Your task to perform on an android device: turn on priority inbox in the gmail app Image 0: 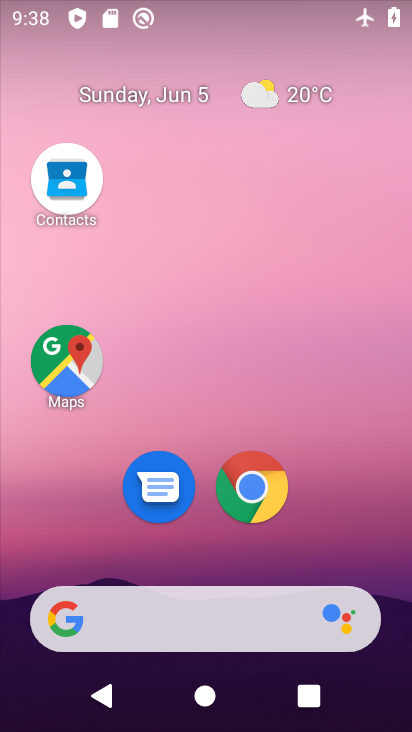
Step 0: drag from (183, 600) to (286, 14)
Your task to perform on an android device: turn on priority inbox in the gmail app Image 1: 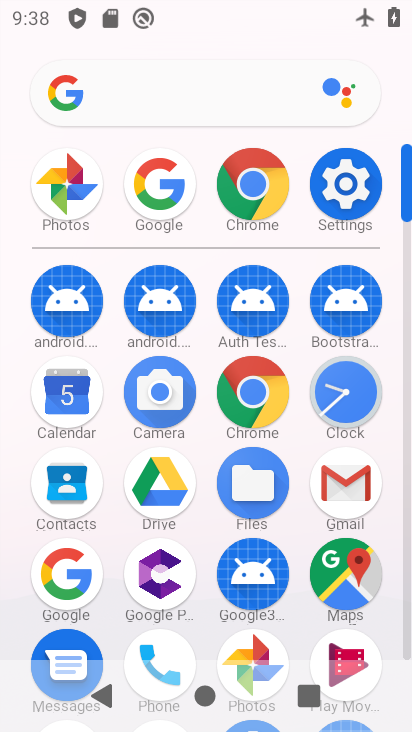
Step 1: click (358, 493)
Your task to perform on an android device: turn on priority inbox in the gmail app Image 2: 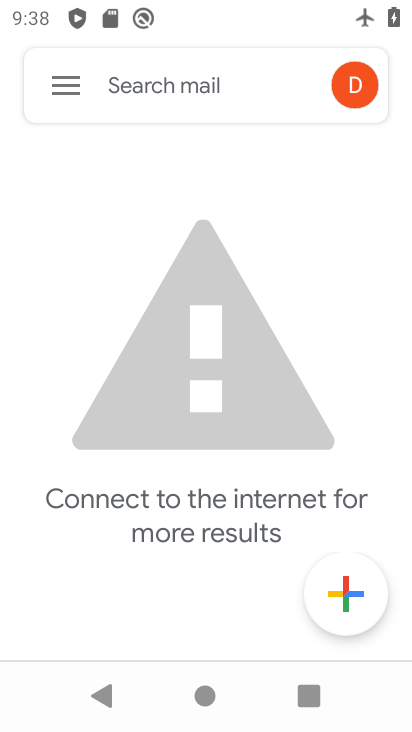
Step 2: click (53, 71)
Your task to perform on an android device: turn on priority inbox in the gmail app Image 3: 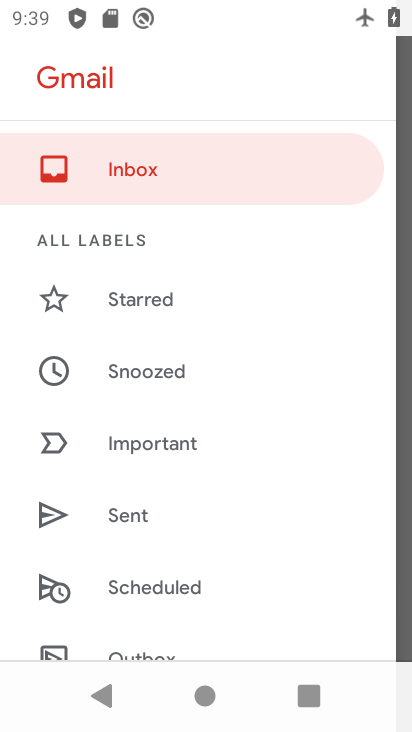
Step 3: drag from (214, 537) to (341, 225)
Your task to perform on an android device: turn on priority inbox in the gmail app Image 4: 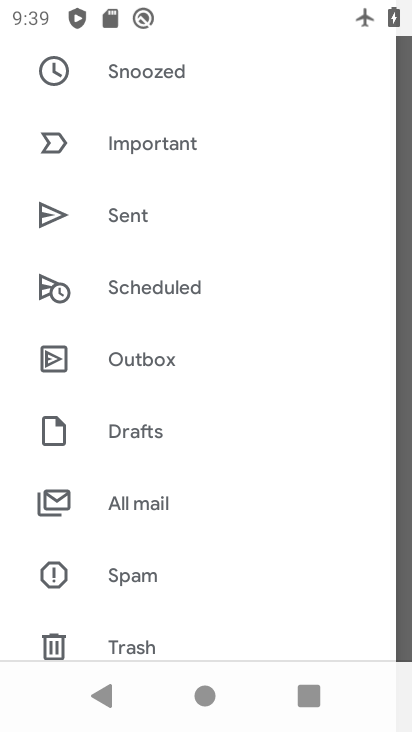
Step 4: drag from (222, 562) to (223, 0)
Your task to perform on an android device: turn on priority inbox in the gmail app Image 5: 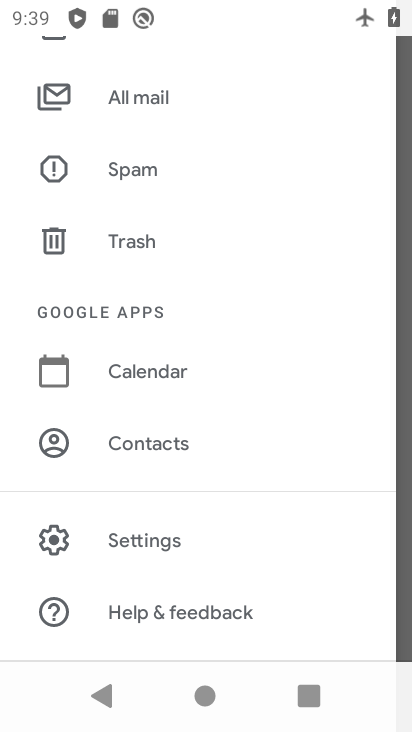
Step 5: click (189, 541)
Your task to perform on an android device: turn on priority inbox in the gmail app Image 6: 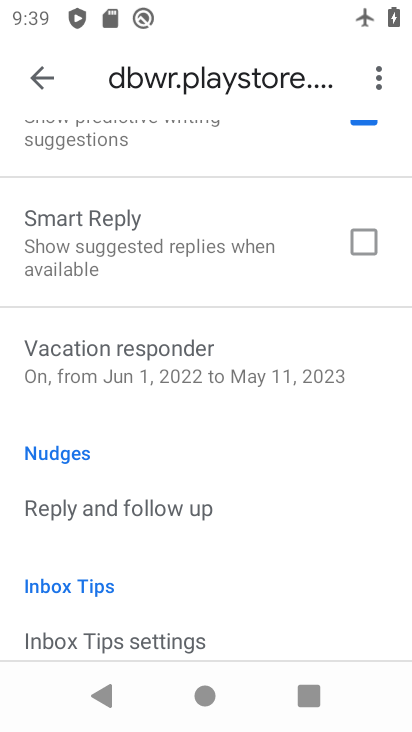
Step 6: drag from (153, 534) to (161, 266)
Your task to perform on an android device: turn on priority inbox in the gmail app Image 7: 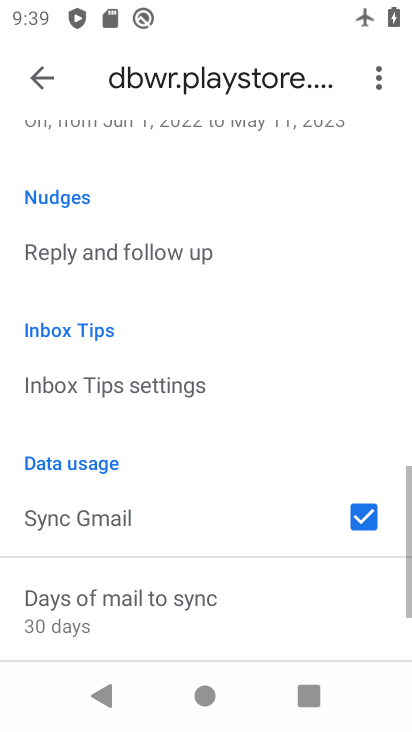
Step 7: drag from (179, 193) to (237, 721)
Your task to perform on an android device: turn on priority inbox in the gmail app Image 8: 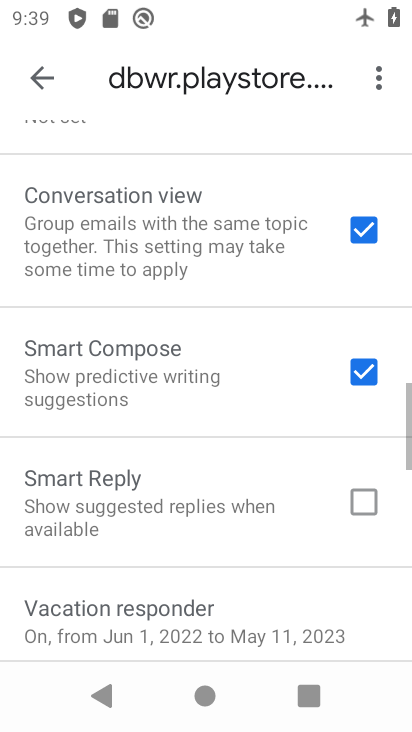
Step 8: drag from (229, 327) to (227, 717)
Your task to perform on an android device: turn on priority inbox in the gmail app Image 9: 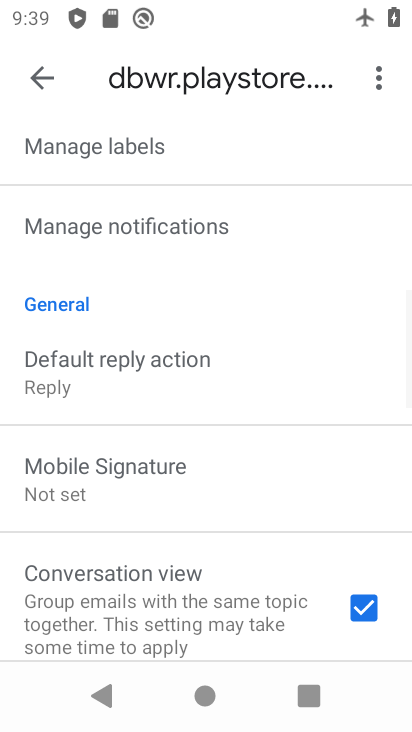
Step 9: drag from (206, 247) to (166, 711)
Your task to perform on an android device: turn on priority inbox in the gmail app Image 10: 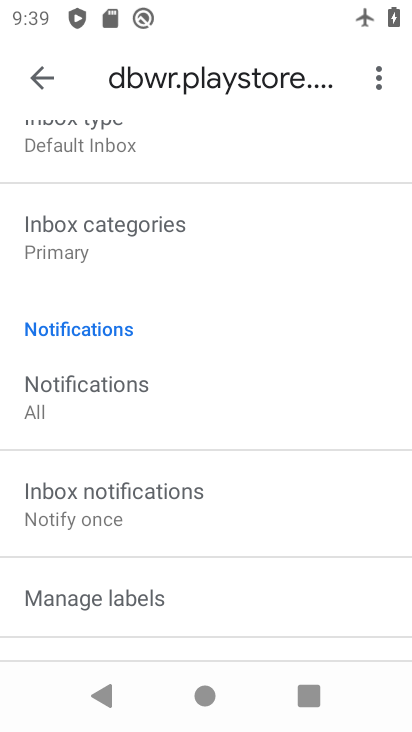
Step 10: drag from (204, 229) to (143, 678)
Your task to perform on an android device: turn on priority inbox in the gmail app Image 11: 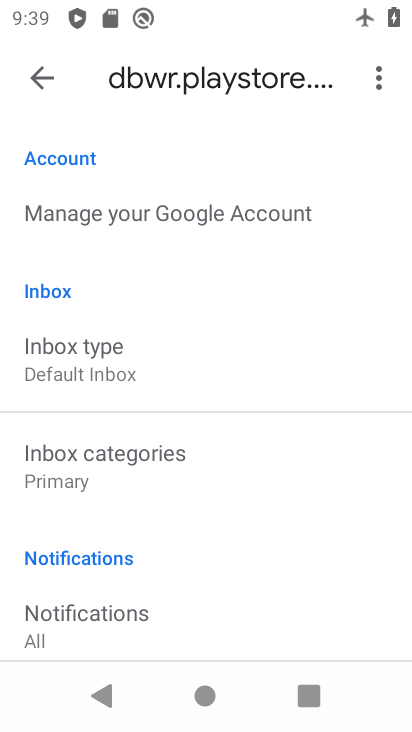
Step 11: click (109, 376)
Your task to perform on an android device: turn on priority inbox in the gmail app Image 12: 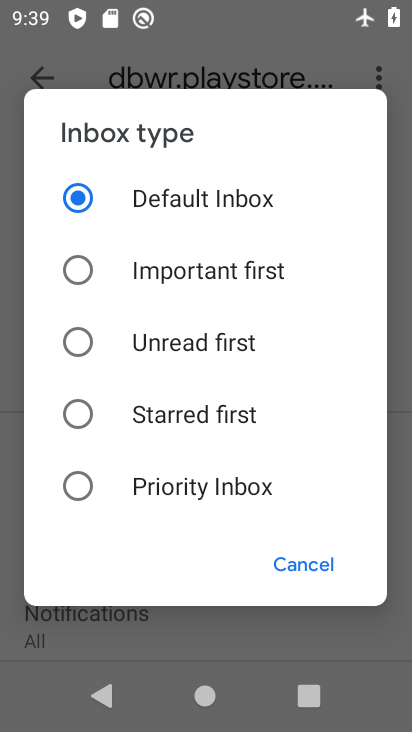
Step 12: click (88, 499)
Your task to perform on an android device: turn on priority inbox in the gmail app Image 13: 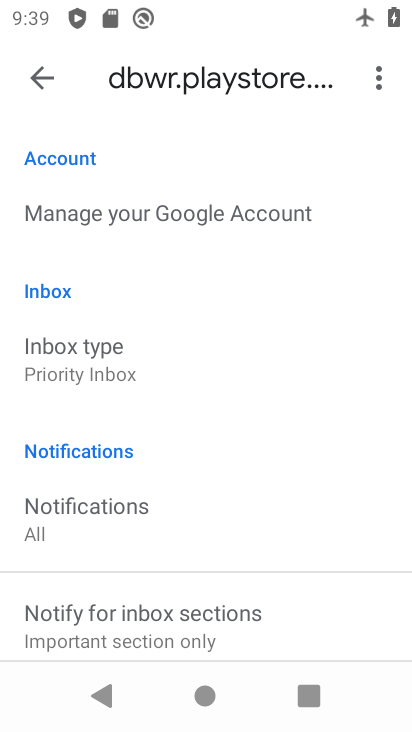
Step 13: task complete